Your task to perform on an android device: Open network settings Image 0: 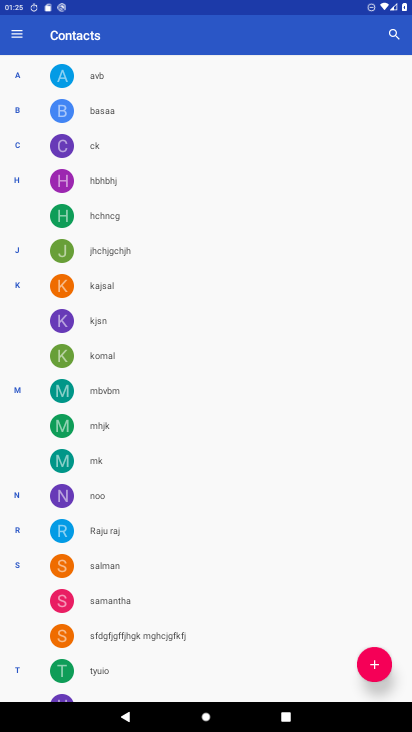
Step 0: press home button
Your task to perform on an android device: Open network settings Image 1: 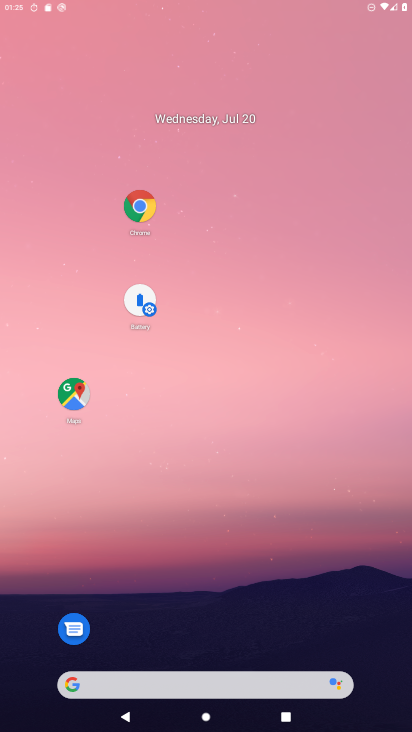
Step 1: drag from (144, 567) to (261, 257)
Your task to perform on an android device: Open network settings Image 2: 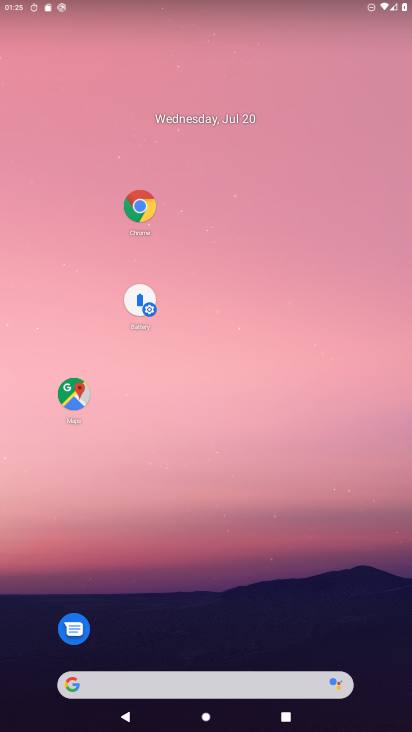
Step 2: drag from (209, 439) to (275, 169)
Your task to perform on an android device: Open network settings Image 3: 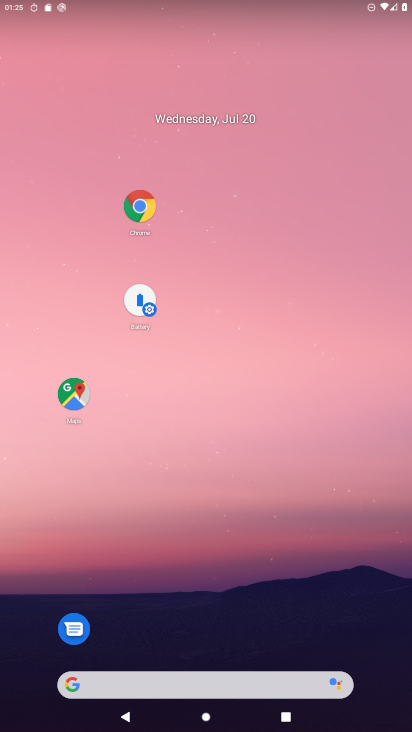
Step 3: drag from (205, 585) to (275, 181)
Your task to perform on an android device: Open network settings Image 4: 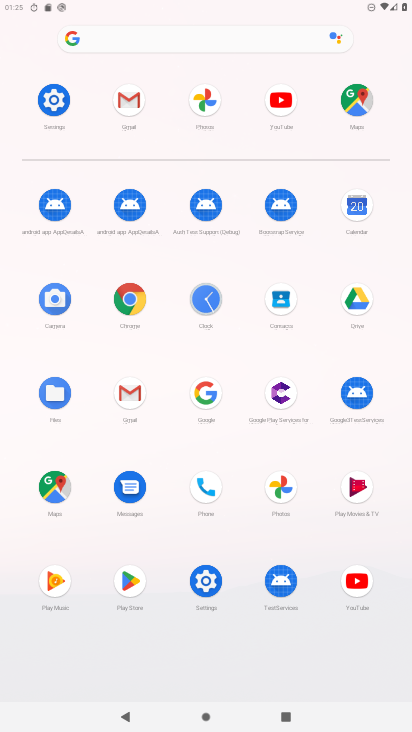
Step 4: click (52, 77)
Your task to perform on an android device: Open network settings Image 5: 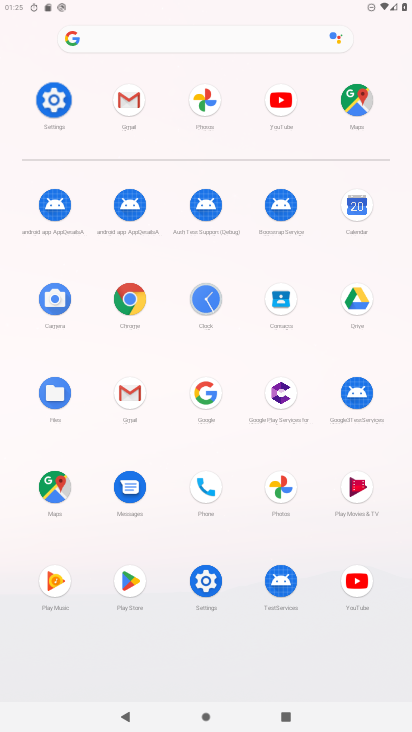
Step 5: click (53, 83)
Your task to perform on an android device: Open network settings Image 6: 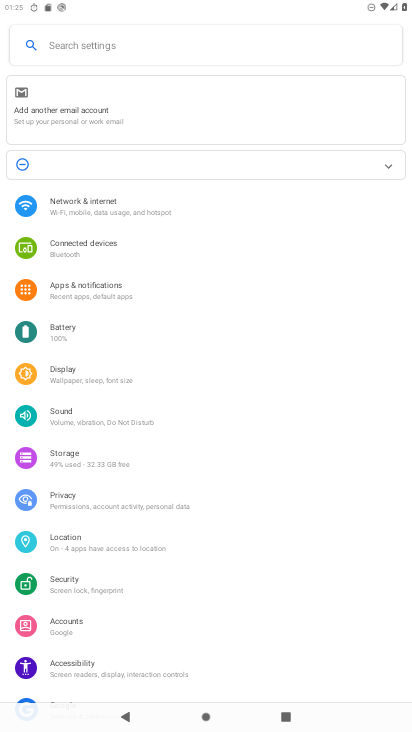
Step 6: click (80, 204)
Your task to perform on an android device: Open network settings Image 7: 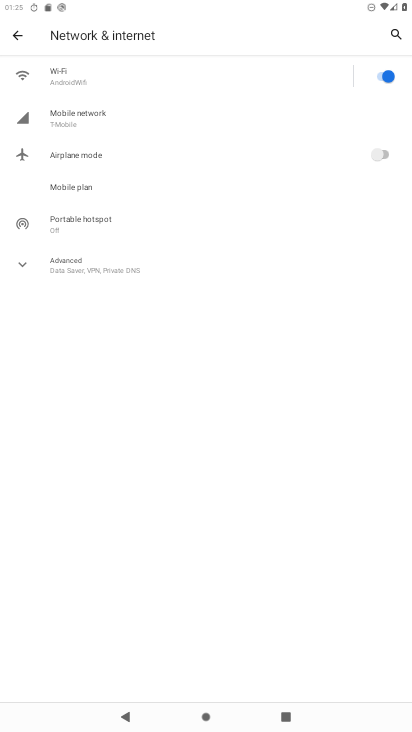
Step 7: task complete